Your task to perform on an android device: move an email to a new category in the gmail app Image 0: 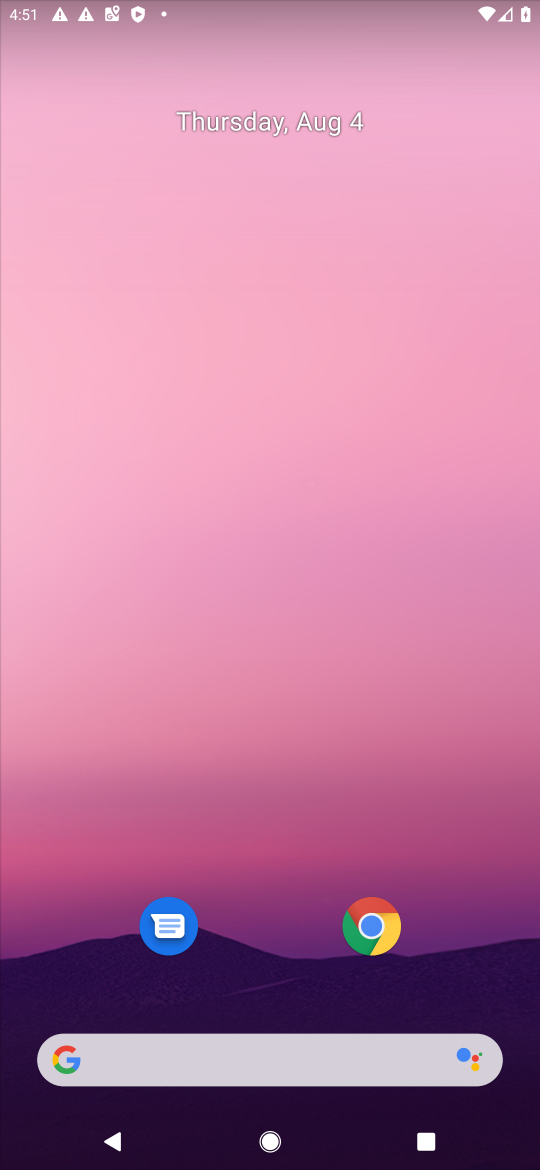
Step 0: drag from (282, 967) to (359, 0)
Your task to perform on an android device: move an email to a new category in the gmail app Image 1: 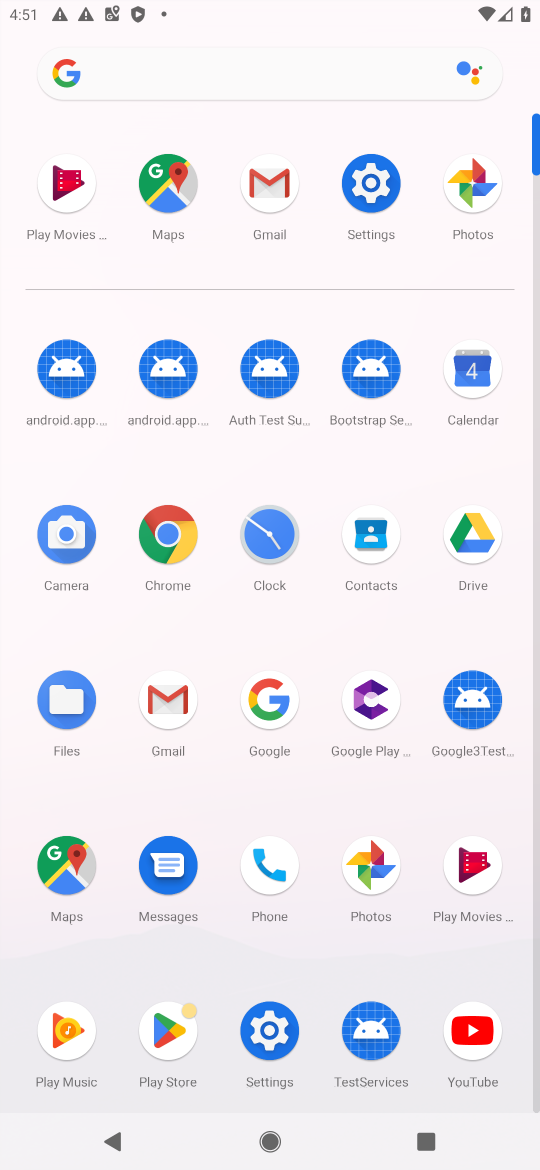
Step 1: click (269, 180)
Your task to perform on an android device: move an email to a new category in the gmail app Image 2: 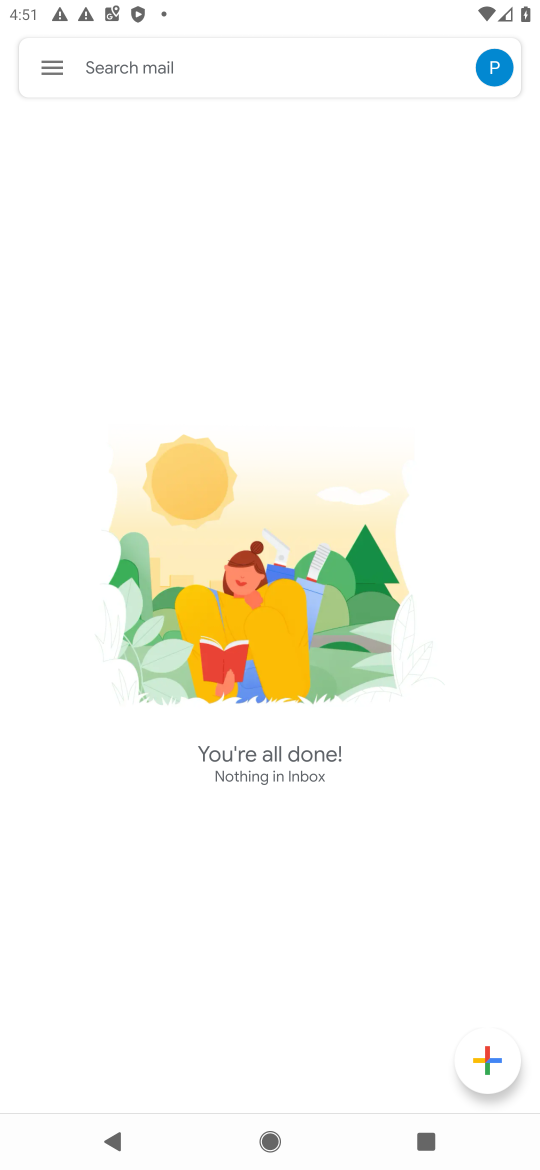
Step 2: click (63, 70)
Your task to perform on an android device: move an email to a new category in the gmail app Image 3: 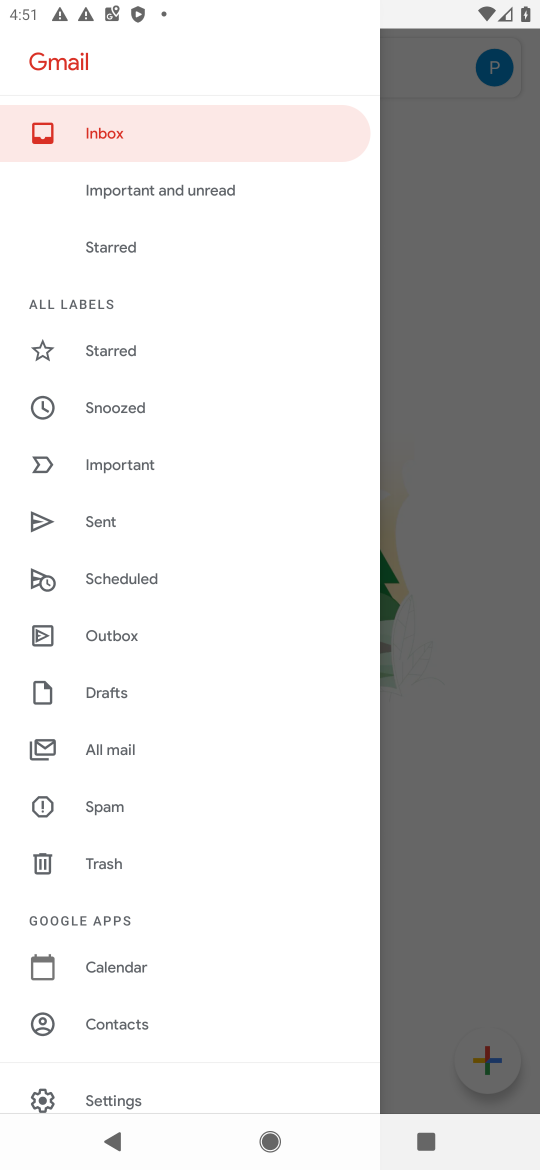
Step 3: click (111, 745)
Your task to perform on an android device: move an email to a new category in the gmail app Image 4: 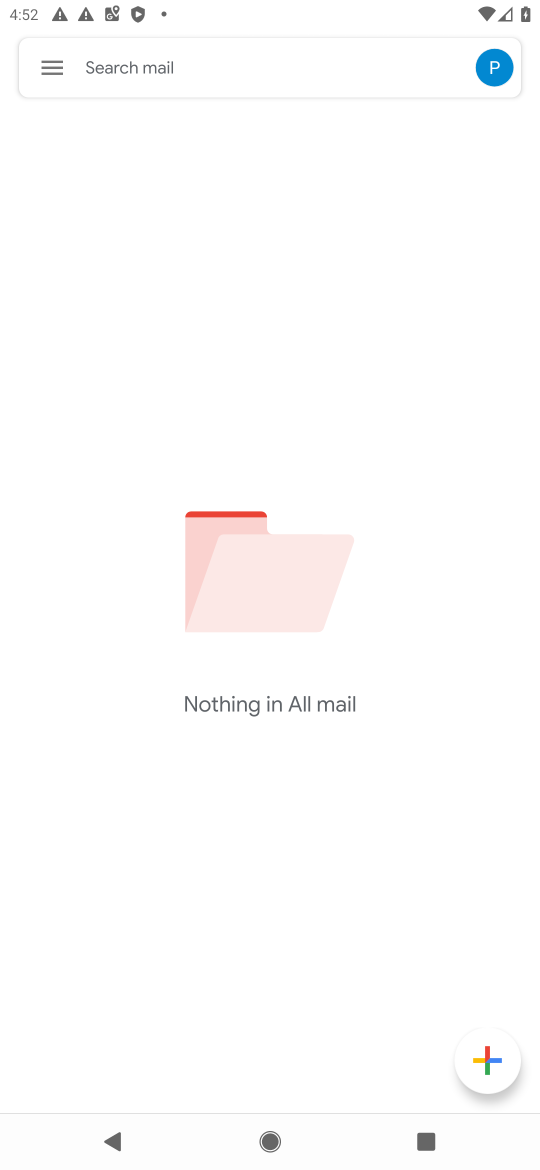
Step 4: task complete